Your task to perform on an android device: Open calendar and show me the first week of next month Image 0: 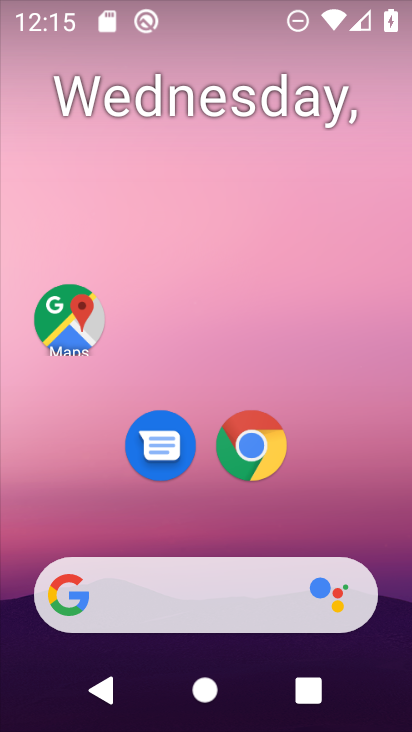
Step 0: drag from (393, 639) to (336, 120)
Your task to perform on an android device: Open calendar and show me the first week of next month Image 1: 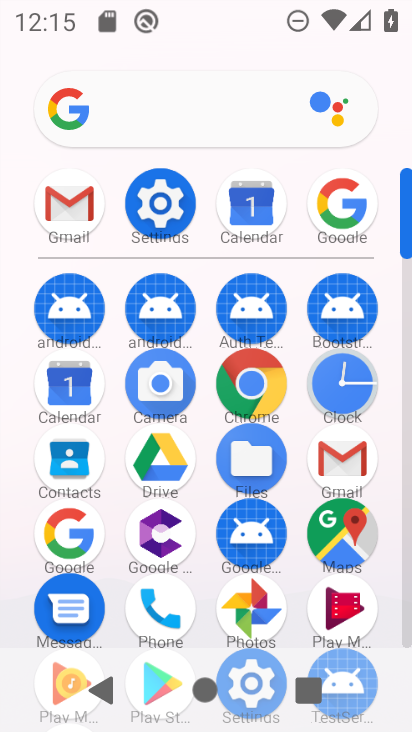
Step 1: click (72, 392)
Your task to perform on an android device: Open calendar and show me the first week of next month Image 2: 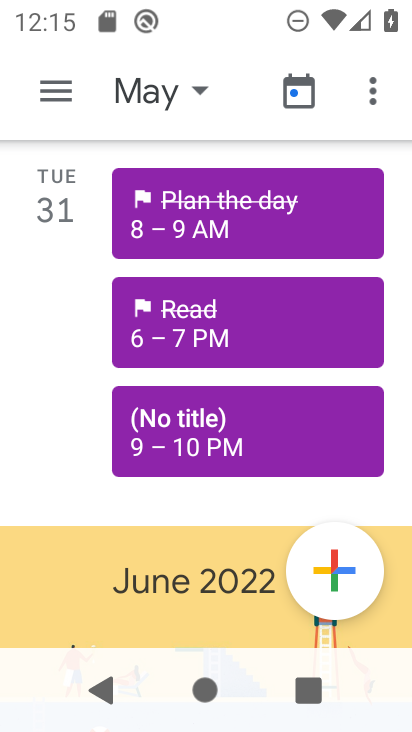
Step 2: click (175, 108)
Your task to perform on an android device: Open calendar and show me the first week of next month Image 3: 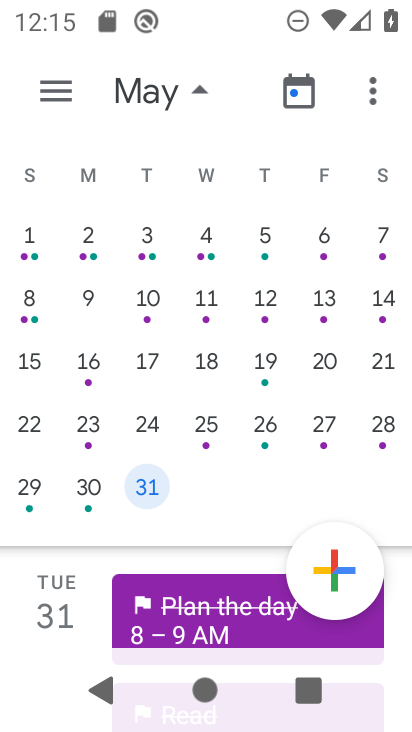
Step 3: drag from (356, 301) to (2, 354)
Your task to perform on an android device: Open calendar and show me the first week of next month Image 4: 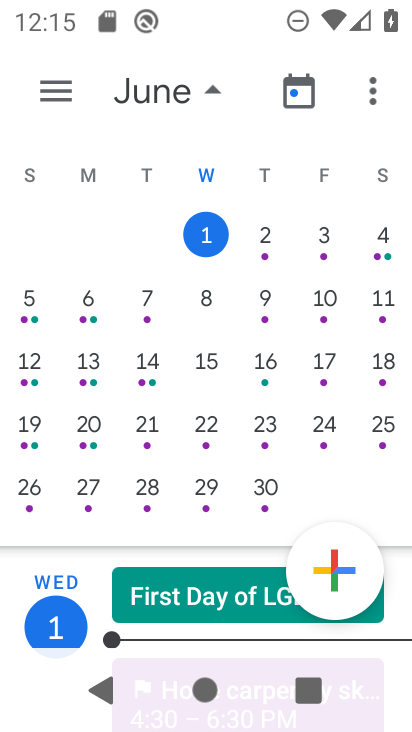
Step 4: click (35, 295)
Your task to perform on an android device: Open calendar and show me the first week of next month Image 5: 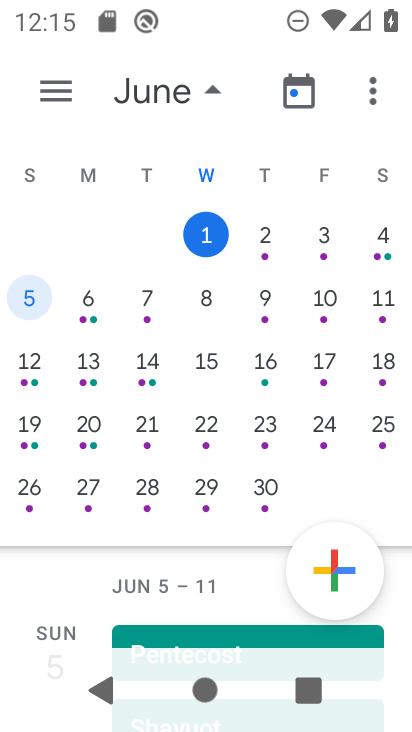
Step 5: task complete